Your task to perform on an android device: find which apps use the phone's location Image 0: 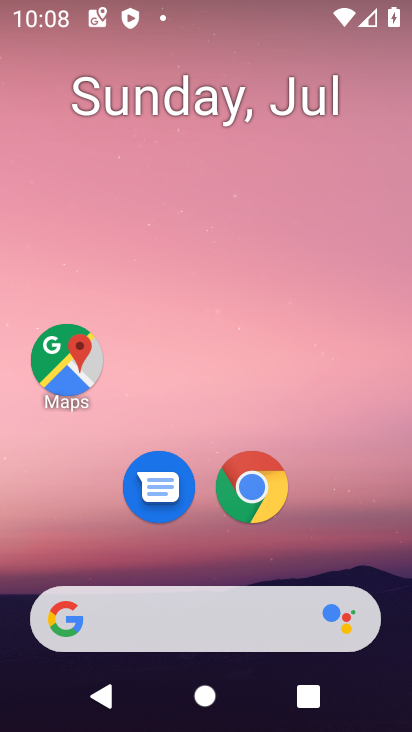
Step 0: drag from (200, 528) to (243, 3)
Your task to perform on an android device: find which apps use the phone's location Image 1: 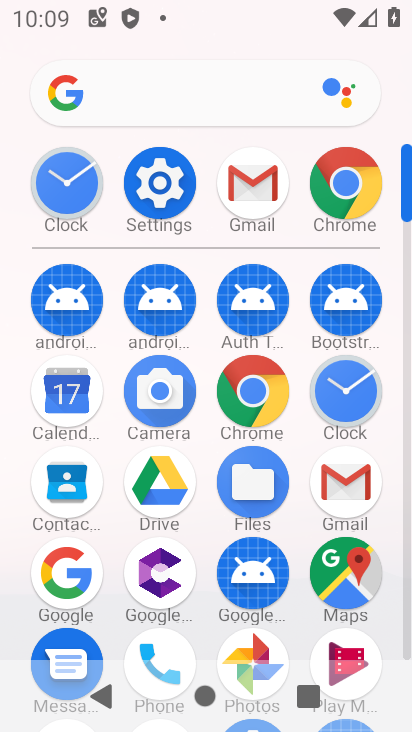
Step 1: click (155, 172)
Your task to perform on an android device: find which apps use the phone's location Image 2: 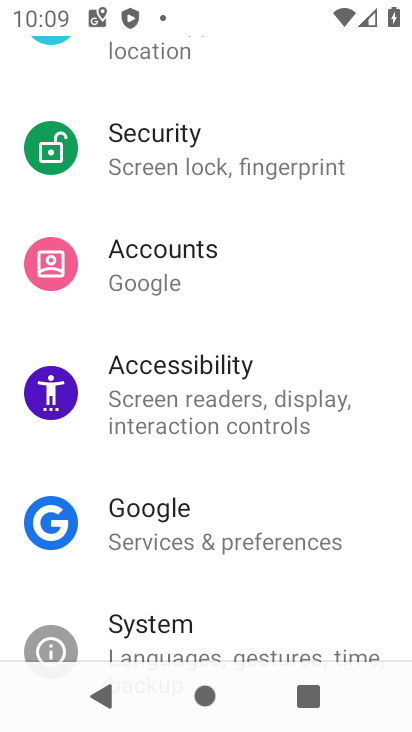
Step 2: drag from (206, 161) to (127, 727)
Your task to perform on an android device: find which apps use the phone's location Image 3: 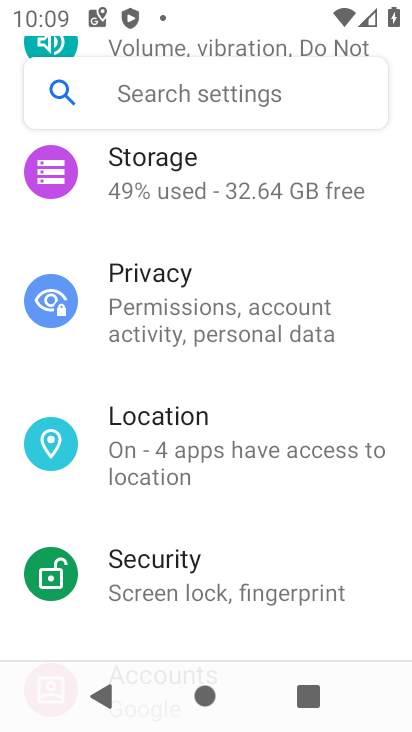
Step 3: drag from (226, 201) to (171, 681)
Your task to perform on an android device: find which apps use the phone's location Image 4: 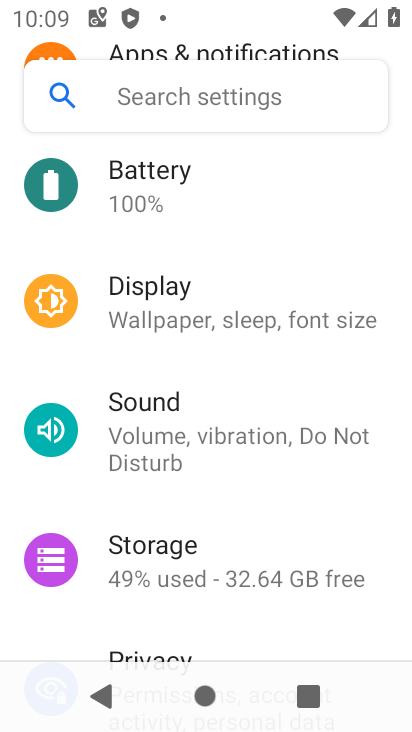
Step 4: drag from (223, 231) to (173, 706)
Your task to perform on an android device: find which apps use the phone's location Image 5: 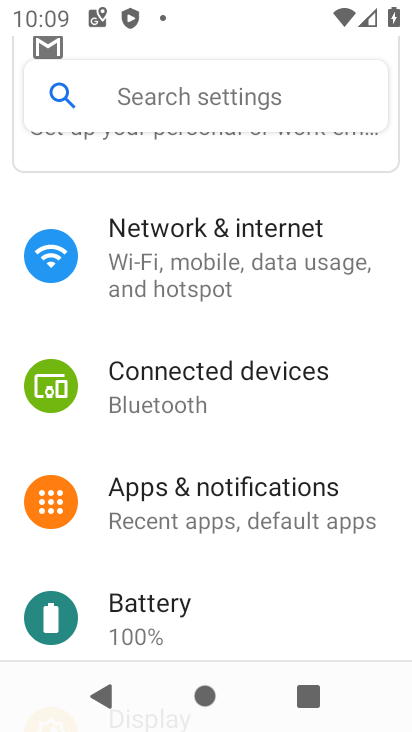
Step 5: drag from (219, 202) to (289, 134)
Your task to perform on an android device: find which apps use the phone's location Image 6: 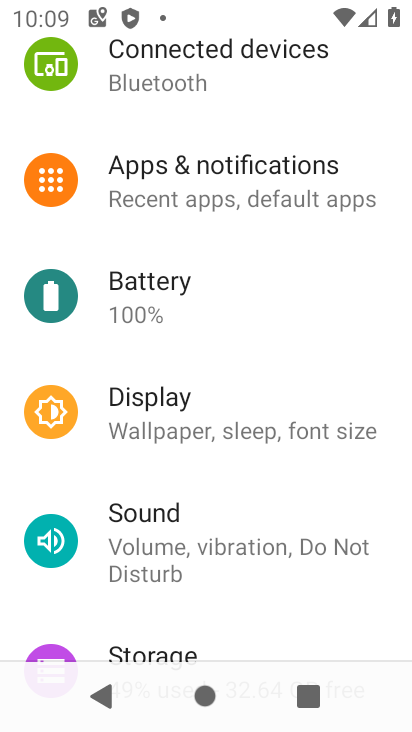
Step 6: drag from (272, 574) to (358, 78)
Your task to perform on an android device: find which apps use the phone's location Image 7: 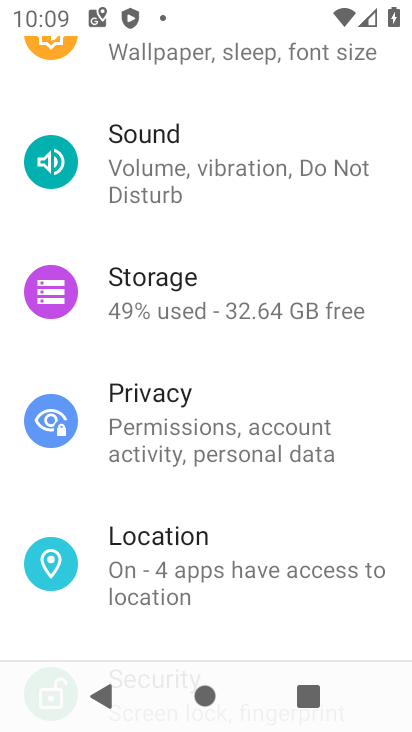
Step 7: click (188, 552)
Your task to perform on an android device: find which apps use the phone's location Image 8: 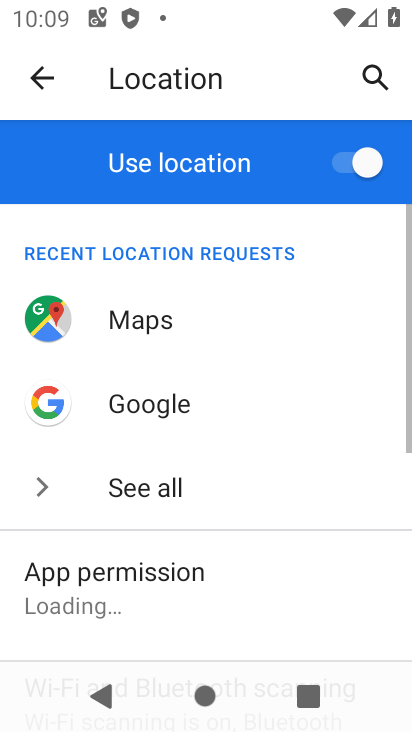
Step 8: drag from (173, 560) to (269, 81)
Your task to perform on an android device: find which apps use the phone's location Image 9: 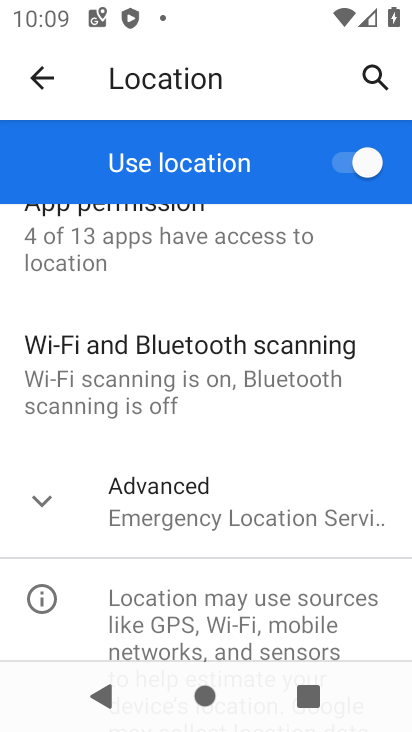
Step 9: drag from (172, 311) to (181, 709)
Your task to perform on an android device: find which apps use the phone's location Image 10: 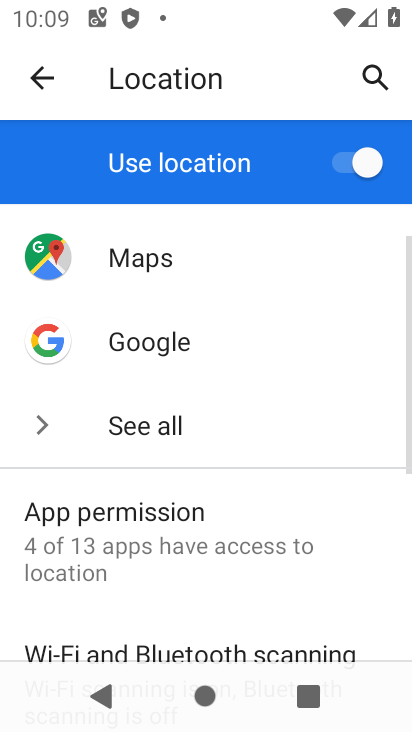
Step 10: drag from (249, 257) to (146, 723)
Your task to perform on an android device: find which apps use the phone's location Image 11: 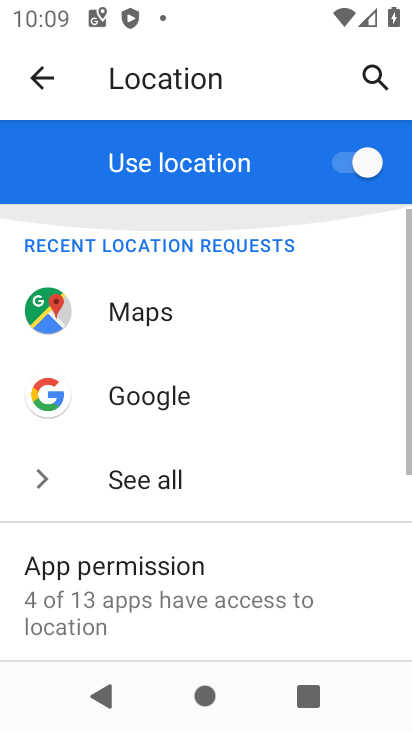
Step 11: drag from (171, 553) to (221, 158)
Your task to perform on an android device: find which apps use the phone's location Image 12: 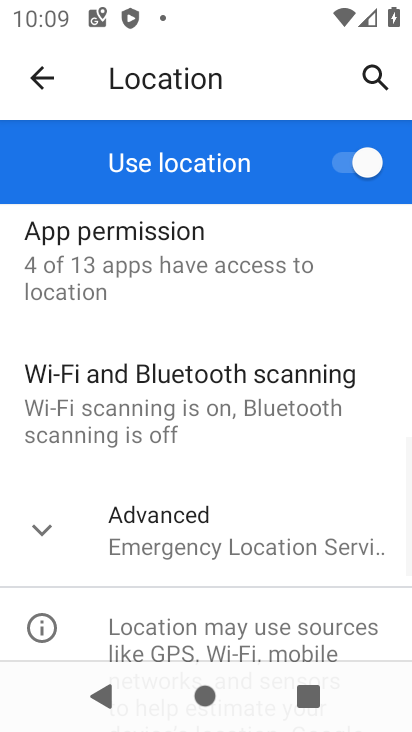
Step 12: drag from (207, 509) to (279, 92)
Your task to perform on an android device: find which apps use the phone's location Image 13: 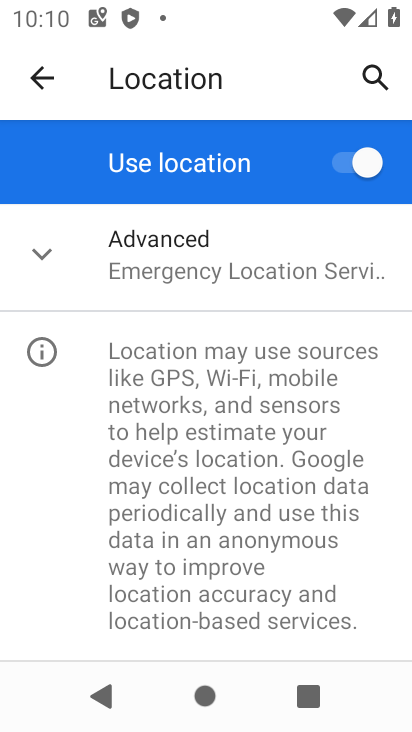
Step 13: click (148, 267)
Your task to perform on an android device: find which apps use the phone's location Image 14: 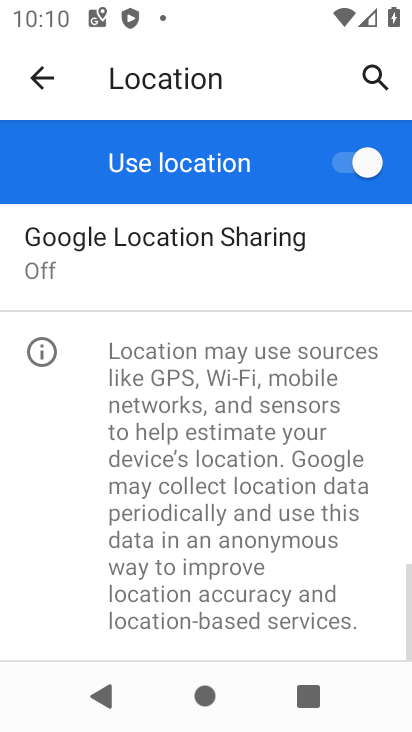
Step 14: click (145, 267)
Your task to perform on an android device: find which apps use the phone's location Image 15: 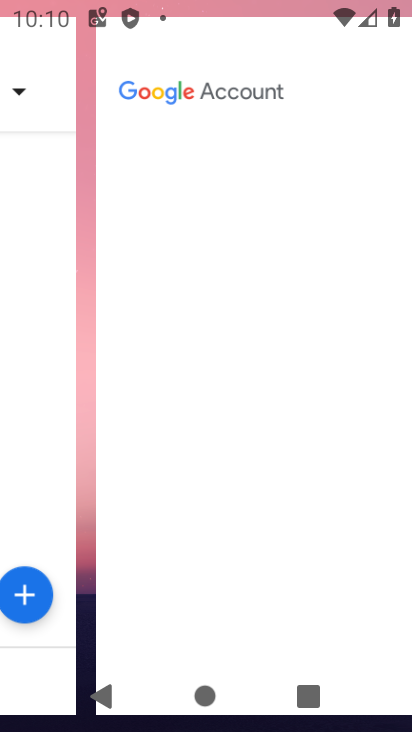
Step 15: click (29, 66)
Your task to perform on an android device: find which apps use the phone's location Image 16: 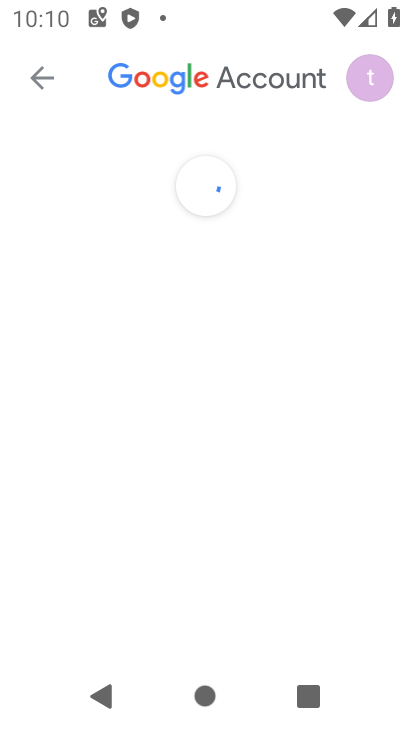
Step 16: press back button
Your task to perform on an android device: find which apps use the phone's location Image 17: 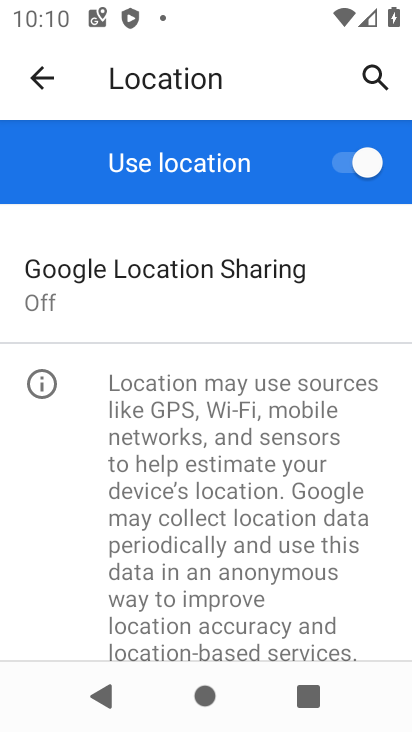
Step 17: click (12, 84)
Your task to perform on an android device: find which apps use the phone's location Image 18: 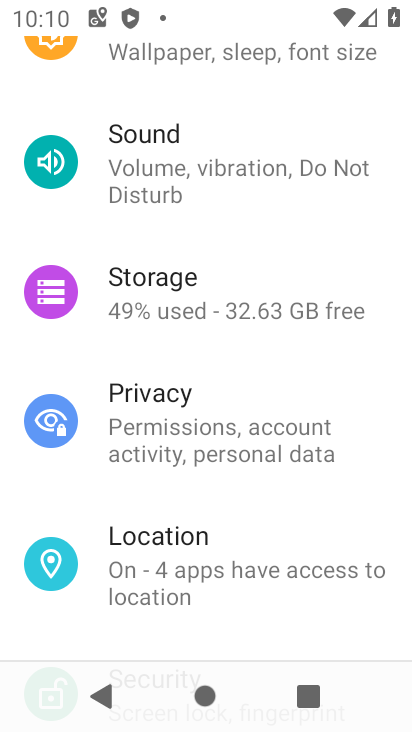
Step 18: drag from (227, 136) to (220, 675)
Your task to perform on an android device: find which apps use the phone's location Image 19: 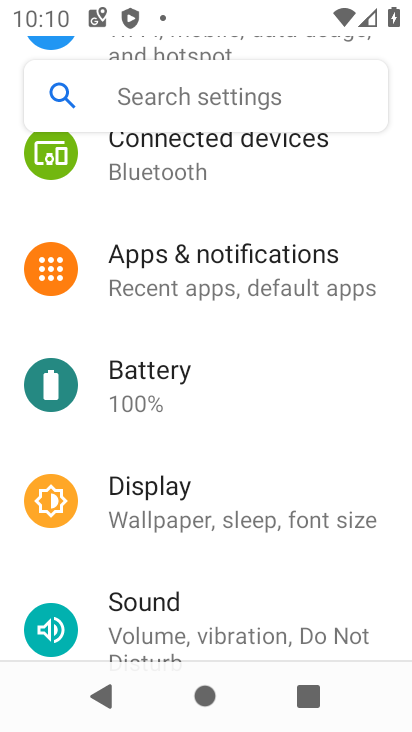
Step 19: drag from (217, 199) to (219, 728)
Your task to perform on an android device: find which apps use the phone's location Image 20: 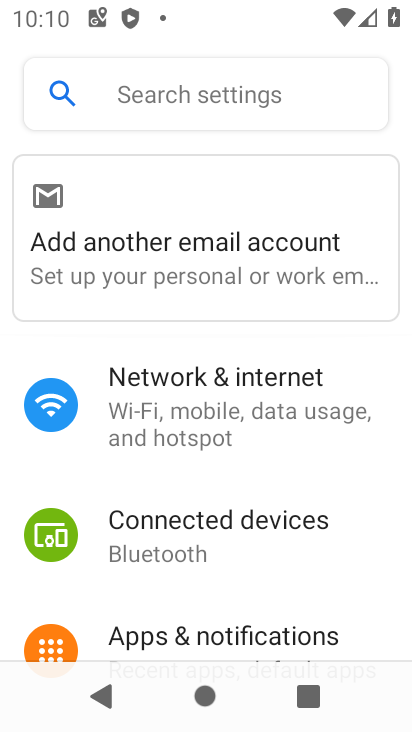
Step 20: drag from (203, 630) to (248, 175)
Your task to perform on an android device: find which apps use the phone's location Image 21: 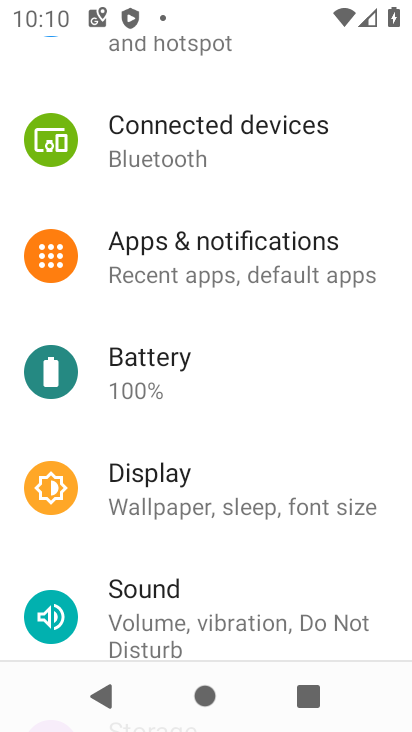
Step 21: drag from (196, 558) to (336, 4)
Your task to perform on an android device: find which apps use the phone's location Image 22: 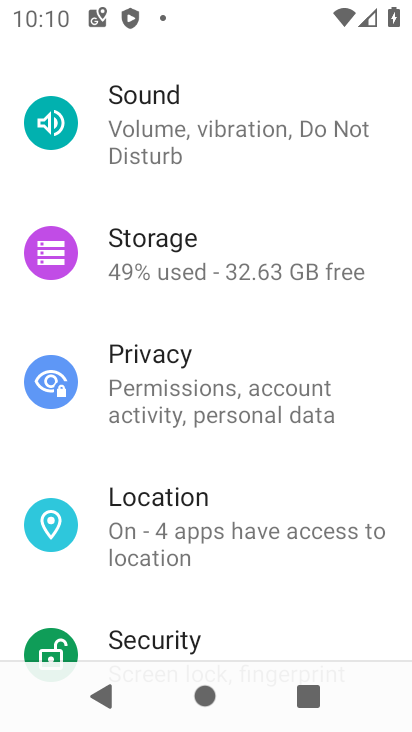
Step 22: click (170, 513)
Your task to perform on an android device: find which apps use the phone's location Image 23: 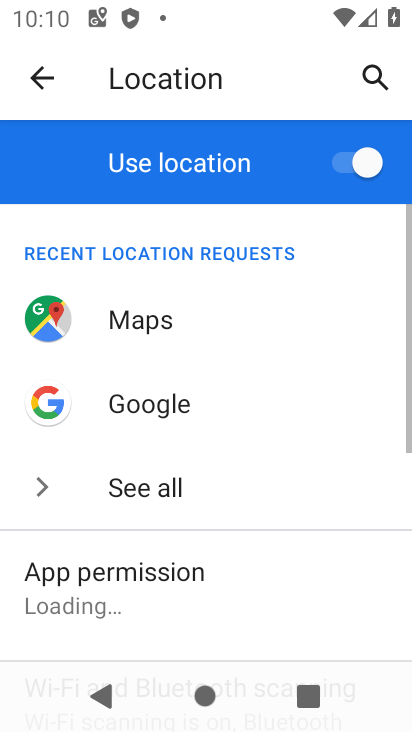
Step 23: click (142, 581)
Your task to perform on an android device: find which apps use the phone's location Image 24: 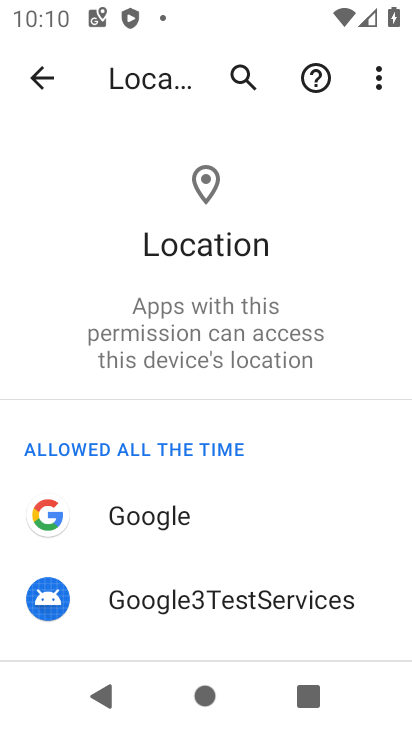
Step 24: task complete